Your task to perform on an android device: Clear the shopping cart on target.com. Add razer kraken to the cart on target.com, then select checkout. Image 0: 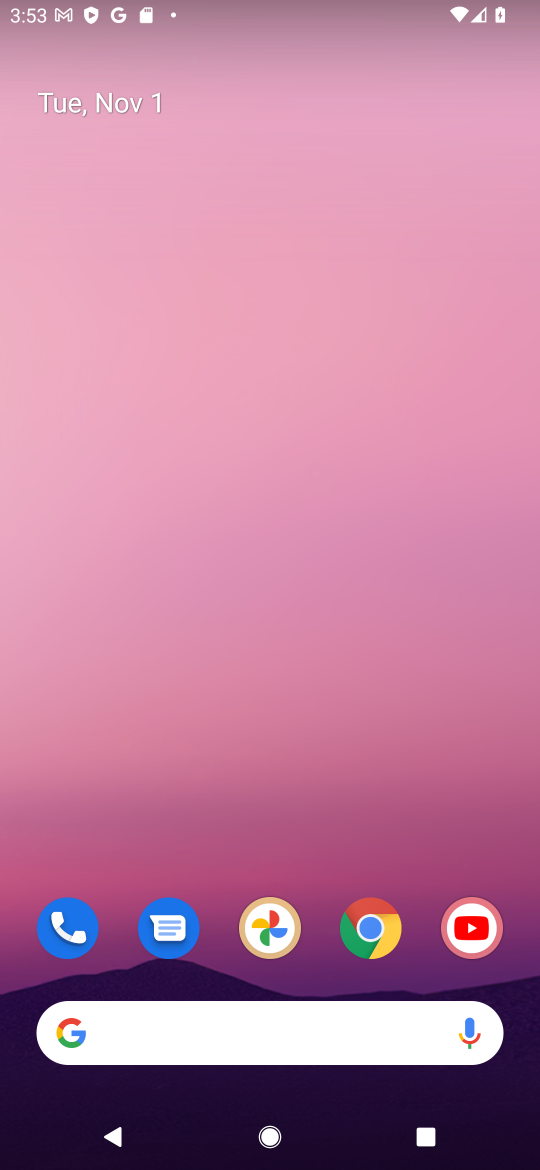
Step 0: click (388, 934)
Your task to perform on an android device: Clear the shopping cart on target.com. Add razer kraken to the cart on target.com, then select checkout. Image 1: 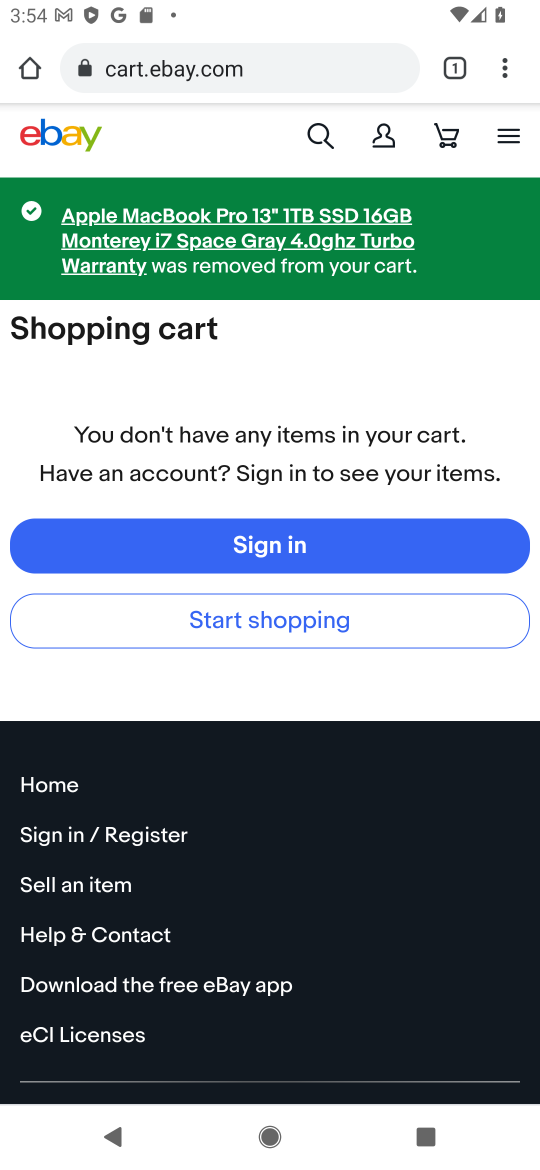
Step 1: click (257, 61)
Your task to perform on an android device: Clear the shopping cart on target.com. Add razer kraken to the cart on target.com, then select checkout. Image 2: 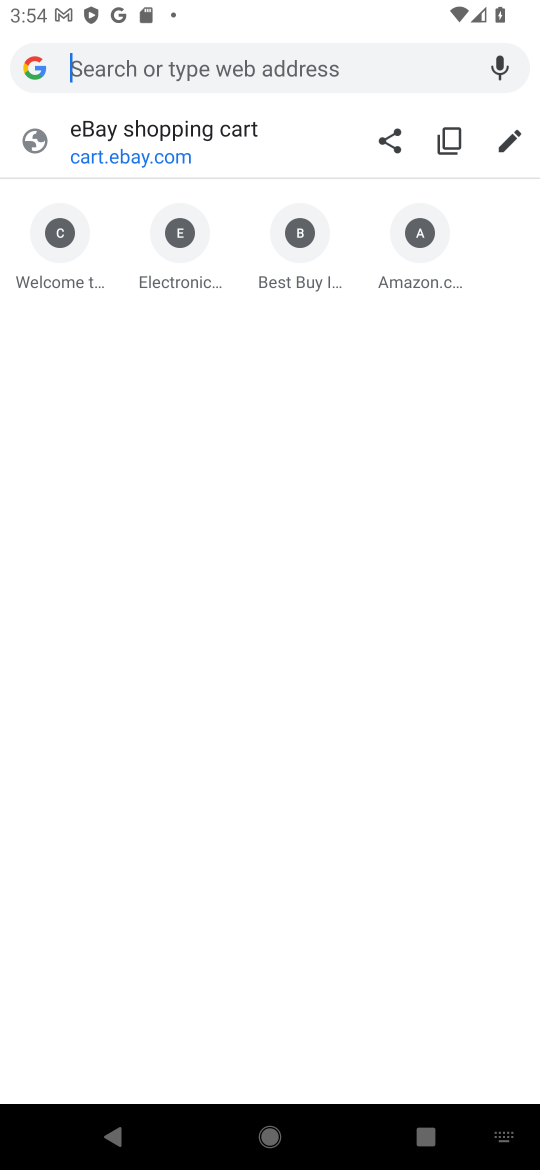
Step 2: type "target.com"
Your task to perform on an android device: Clear the shopping cart on target.com. Add razer kraken to the cart on target.com, then select checkout. Image 3: 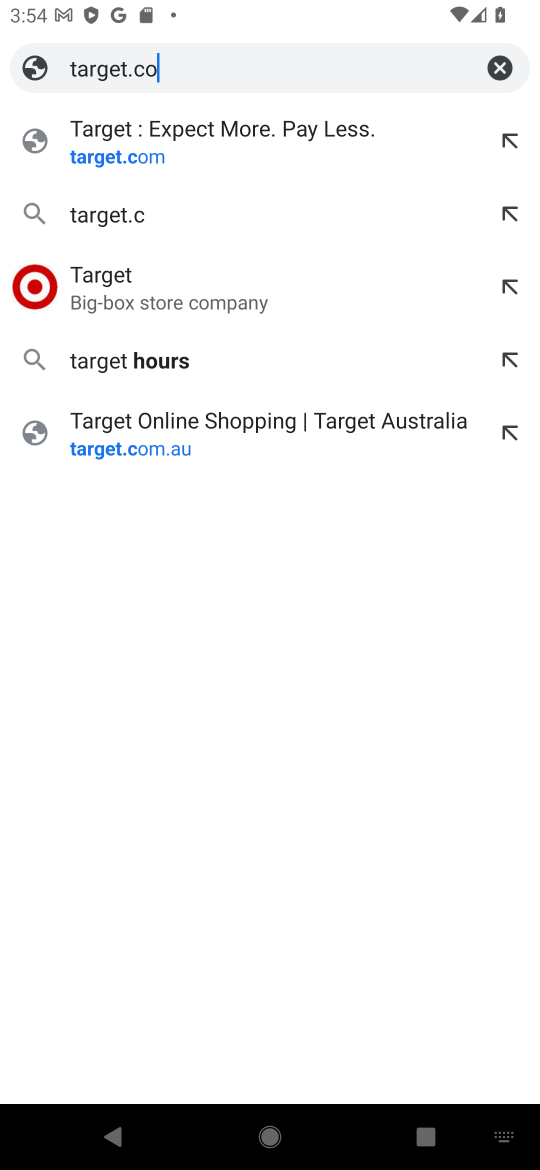
Step 3: type ""
Your task to perform on an android device: Clear the shopping cart on target.com. Add razer kraken to the cart on target.com, then select checkout. Image 4: 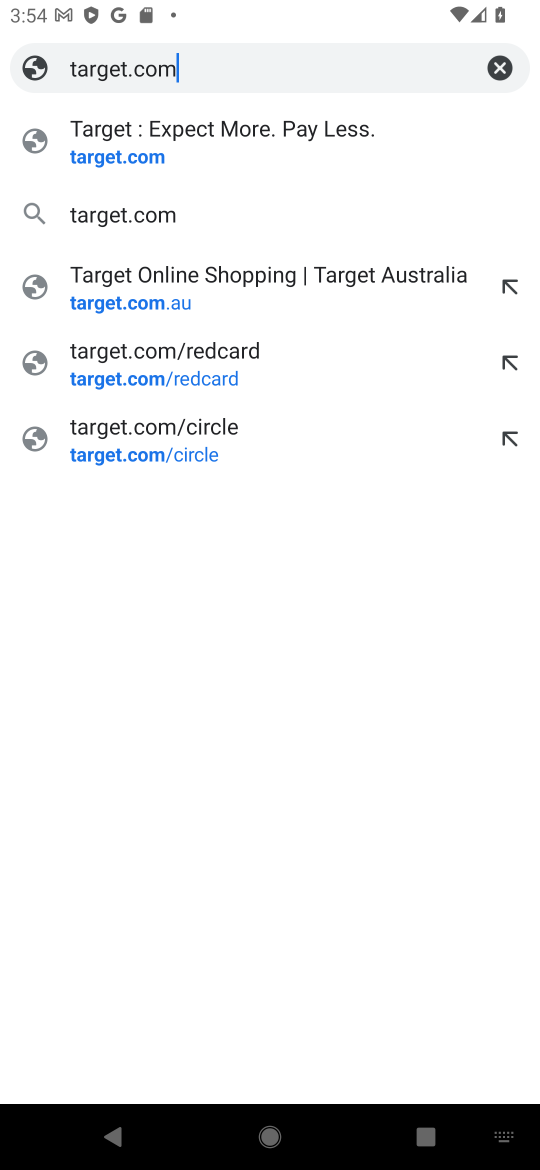
Step 4: press enter
Your task to perform on an android device: Clear the shopping cart on target.com. Add razer kraken to the cart on target.com, then select checkout. Image 5: 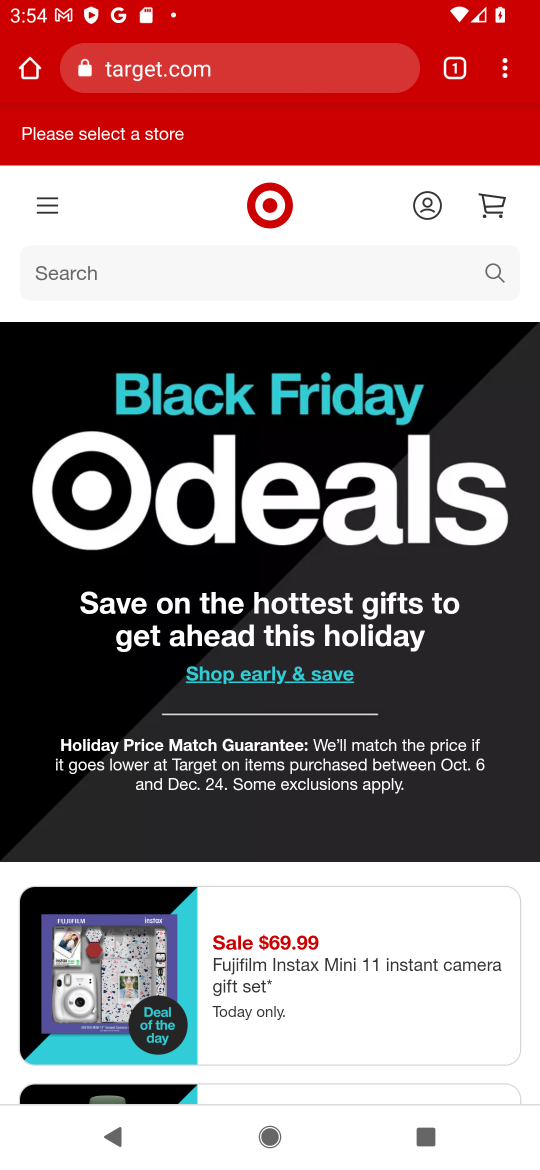
Step 5: click (479, 196)
Your task to perform on an android device: Clear the shopping cart on target.com. Add razer kraken to the cart on target.com, then select checkout. Image 6: 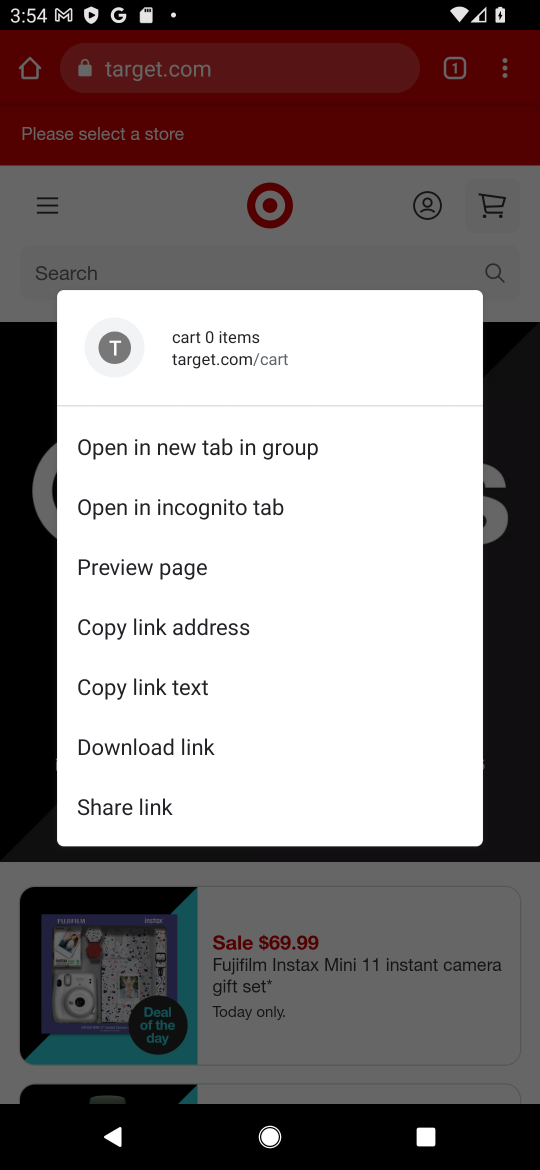
Step 6: click (426, 1007)
Your task to perform on an android device: Clear the shopping cart on target.com. Add razer kraken to the cart on target.com, then select checkout. Image 7: 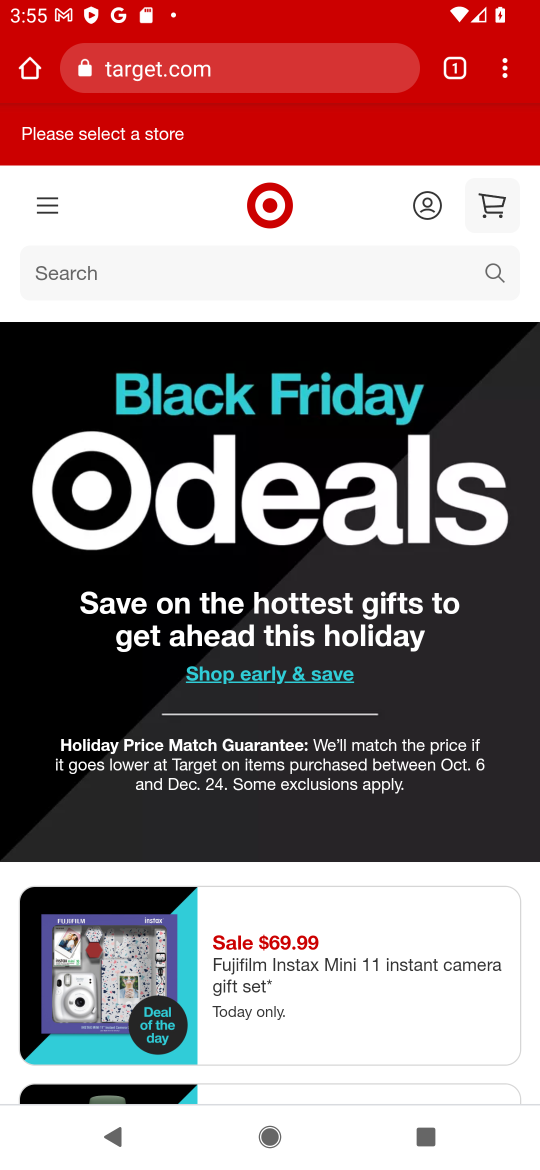
Step 7: click (483, 200)
Your task to perform on an android device: Clear the shopping cart on target.com. Add razer kraken to the cart on target.com, then select checkout. Image 8: 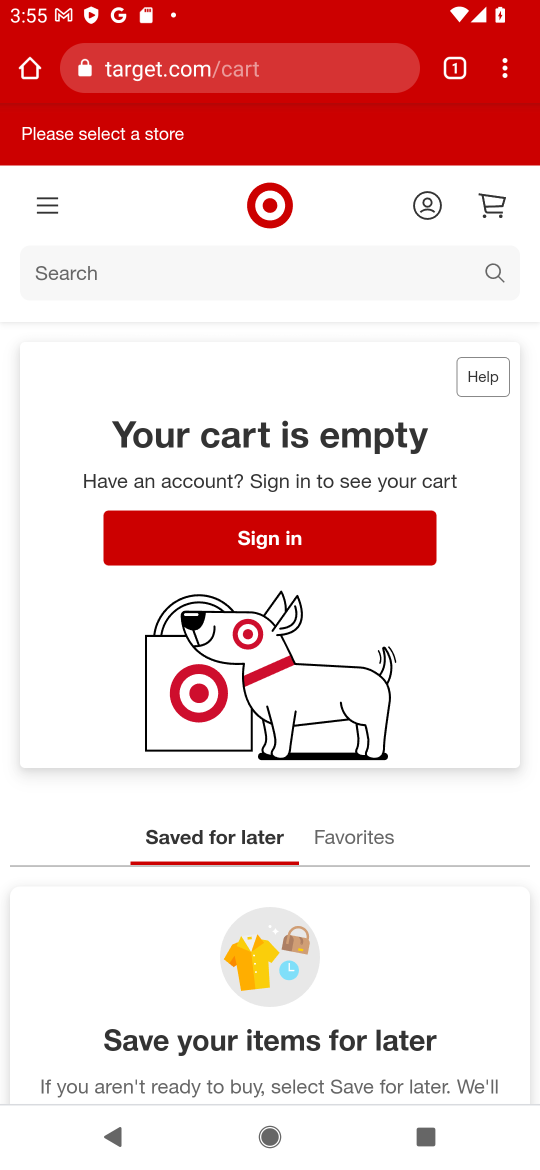
Step 8: click (158, 264)
Your task to perform on an android device: Clear the shopping cart on target.com. Add razer kraken to the cart on target.com, then select checkout. Image 9: 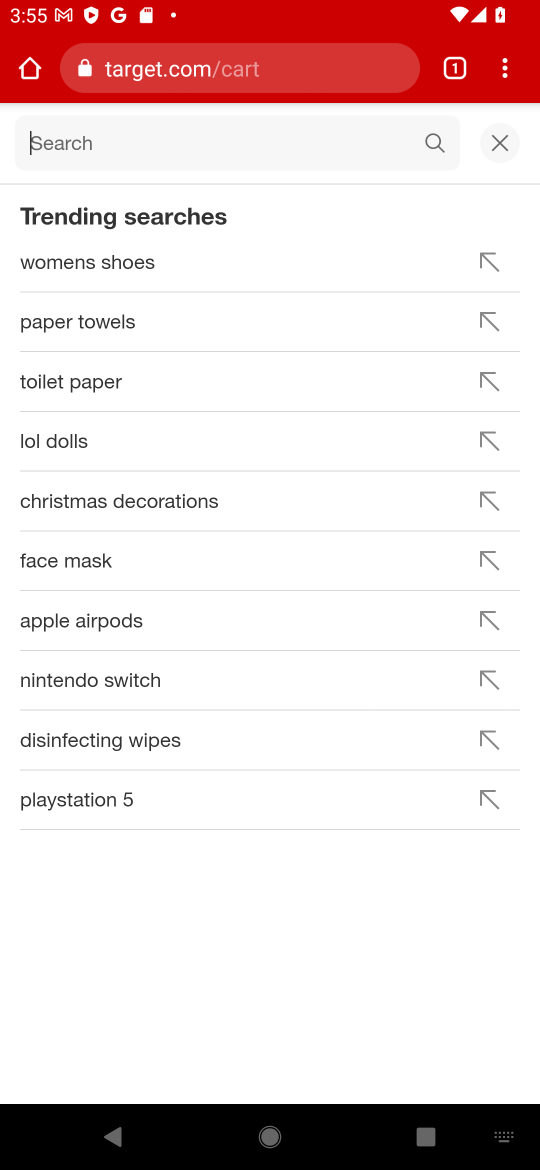
Step 9: type "razer kraken"
Your task to perform on an android device: Clear the shopping cart on target.com. Add razer kraken to the cart on target.com, then select checkout. Image 10: 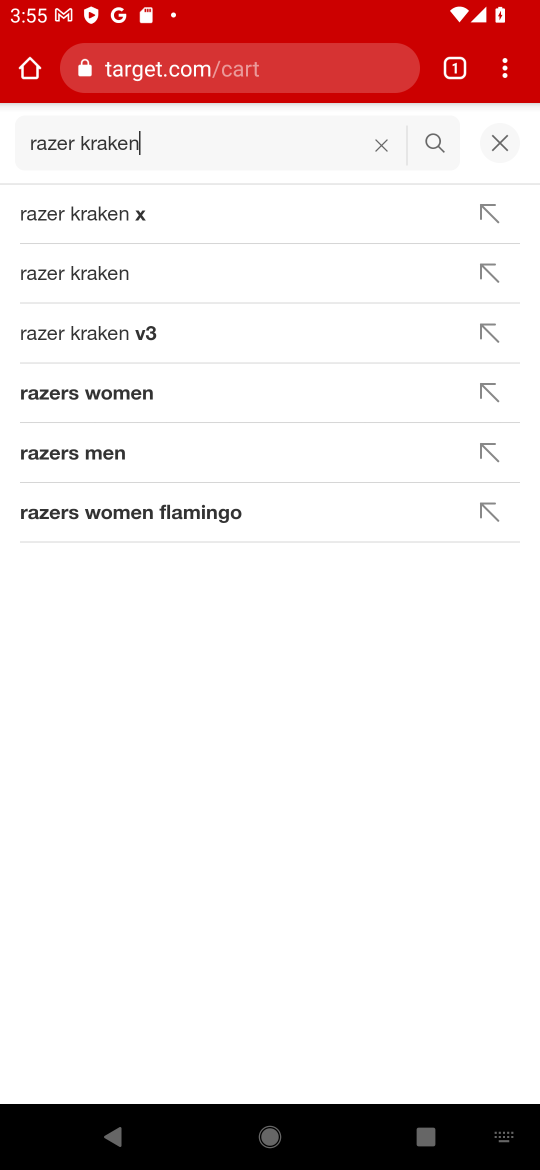
Step 10: press enter
Your task to perform on an android device: Clear the shopping cart on target.com. Add razer kraken to the cart on target.com, then select checkout. Image 11: 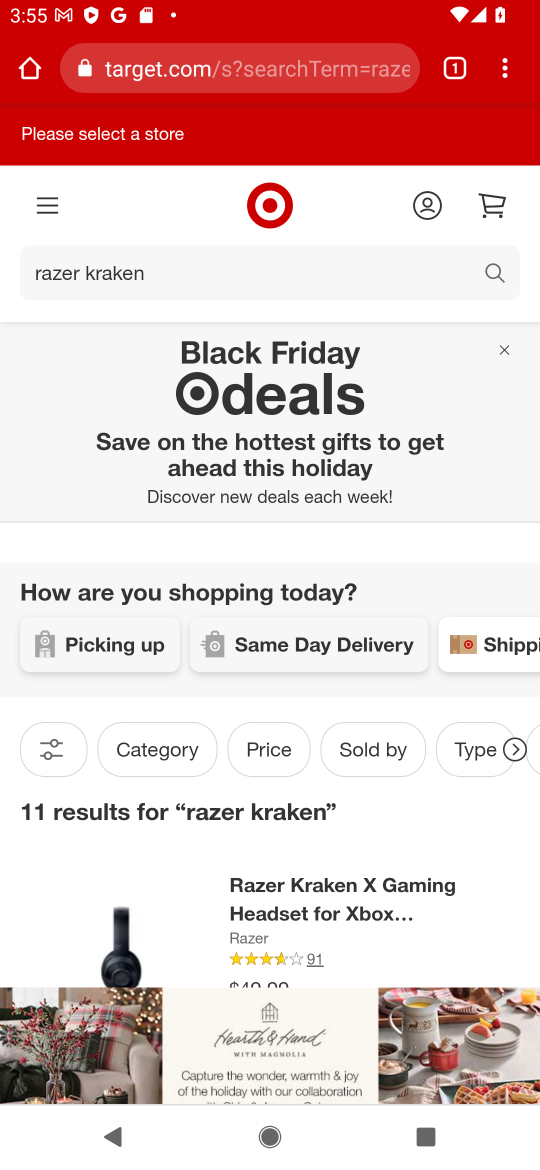
Step 11: drag from (407, 910) to (380, 375)
Your task to perform on an android device: Clear the shopping cart on target.com. Add razer kraken to the cart on target.com, then select checkout. Image 12: 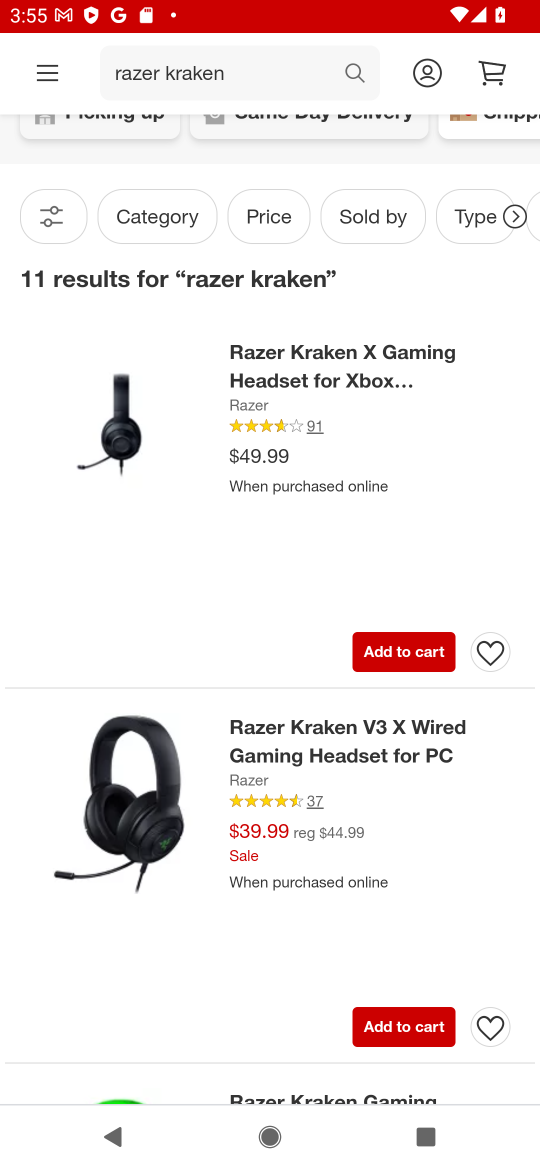
Step 12: click (328, 375)
Your task to perform on an android device: Clear the shopping cart on target.com. Add razer kraken to the cart on target.com, then select checkout. Image 13: 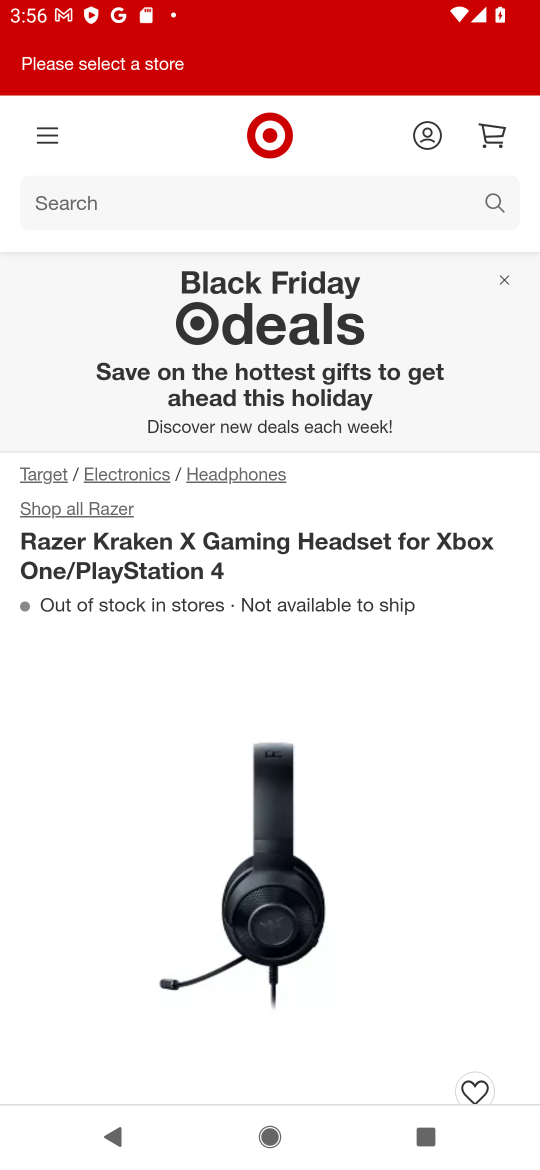
Step 13: drag from (340, 786) to (309, 242)
Your task to perform on an android device: Clear the shopping cart on target.com. Add razer kraken to the cart on target.com, then select checkout. Image 14: 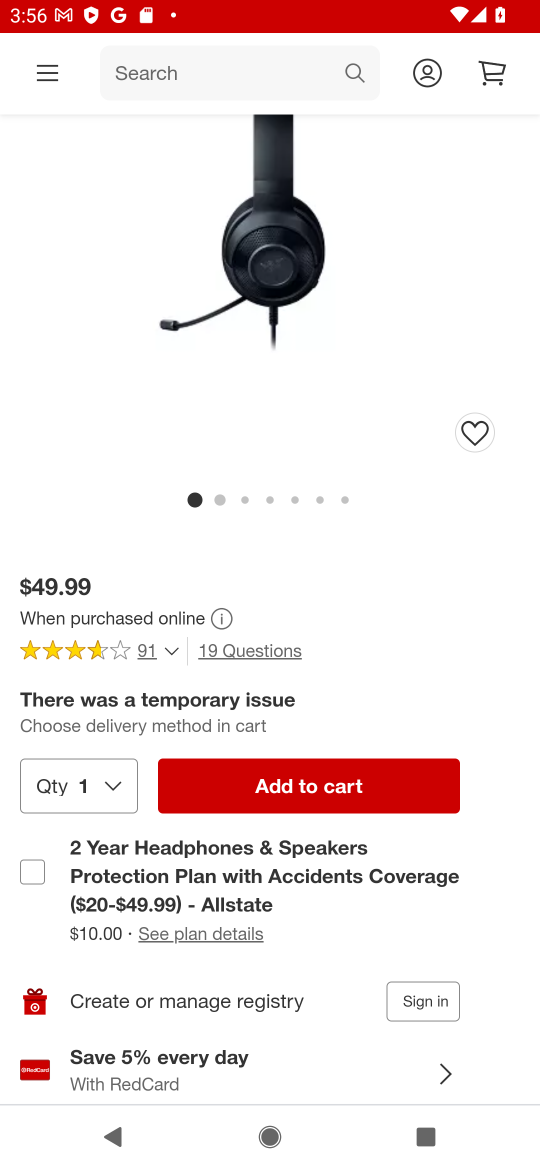
Step 14: drag from (303, 953) to (393, 504)
Your task to perform on an android device: Clear the shopping cart on target.com. Add razer kraken to the cart on target.com, then select checkout. Image 15: 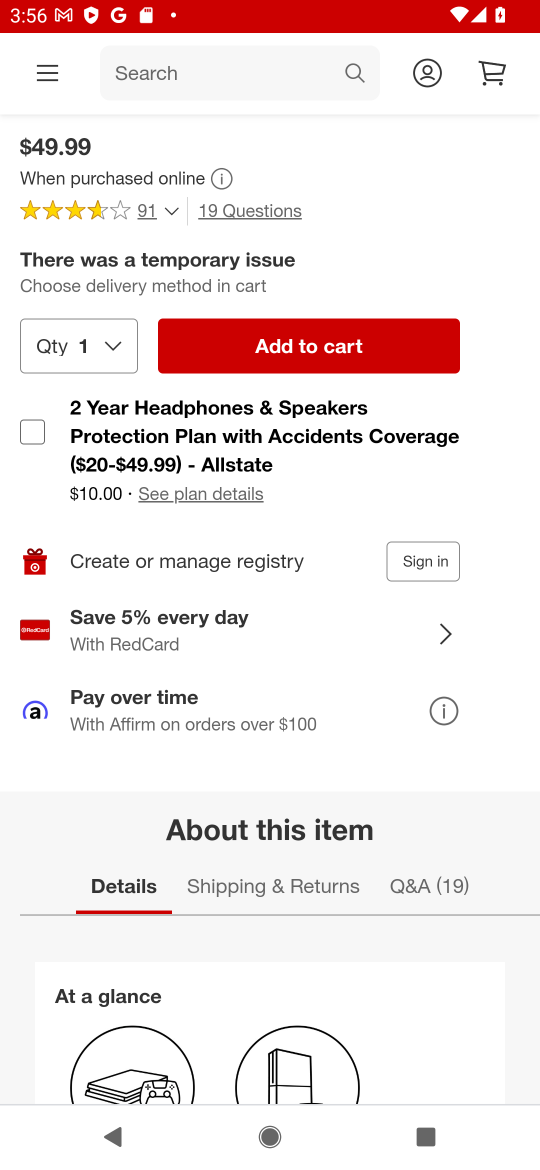
Step 15: click (404, 362)
Your task to perform on an android device: Clear the shopping cart on target.com. Add razer kraken to the cart on target.com, then select checkout. Image 16: 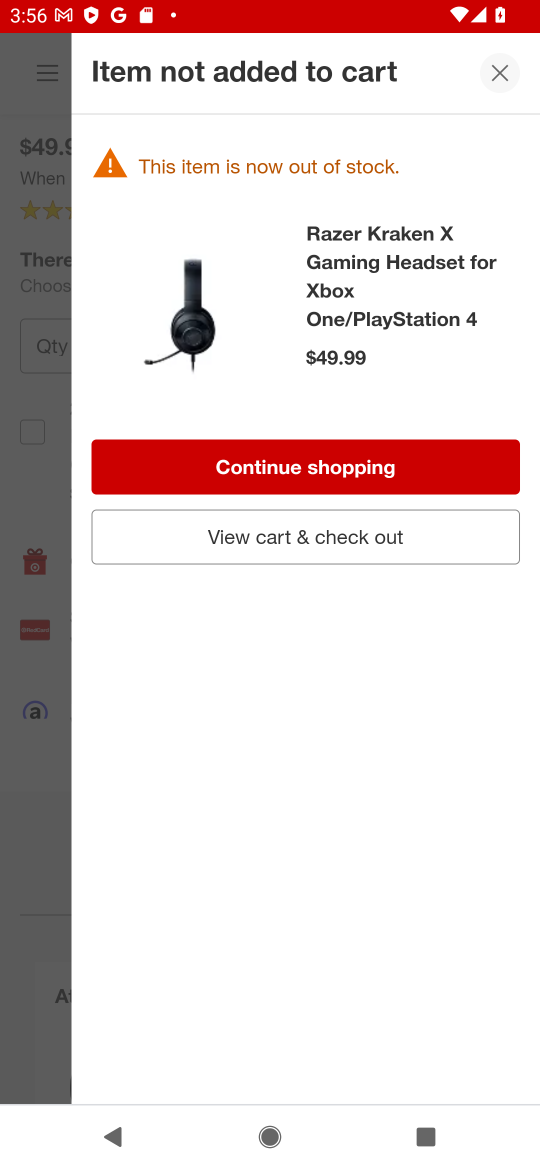
Step 16: click (354, 540)
Your task to perform on an android device: Clear the shopping cart on target.com. Add razer kraken to the cart on target.com, then select checkout. Image 17: 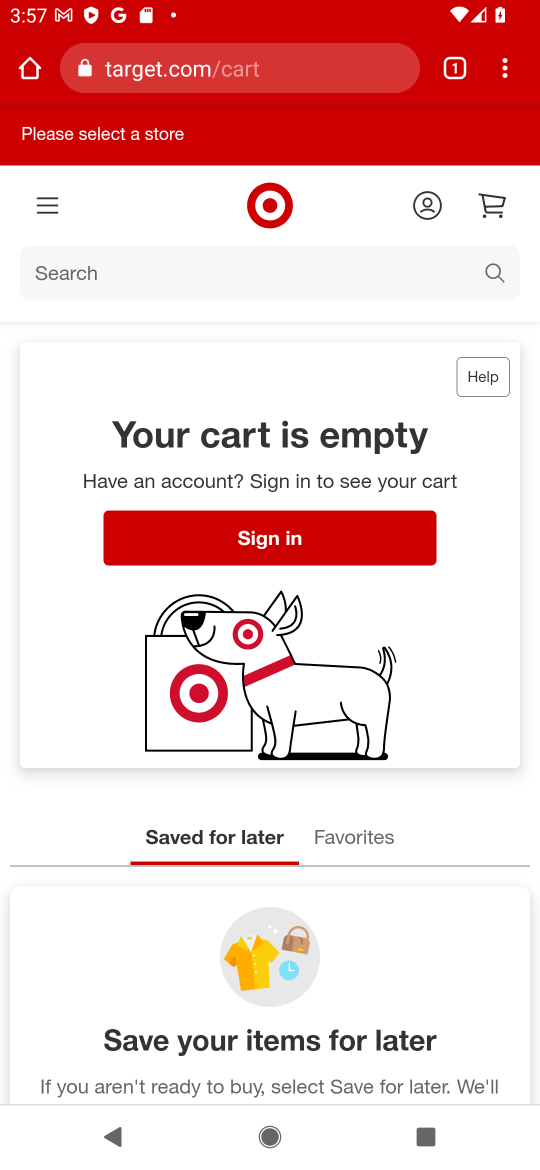
Step 17: click (170, 289)
Your task to perform on an android device: Clear the shopping cart on target.com. Add razer kraken to the cart on target.com, then select checkout. Image 18: 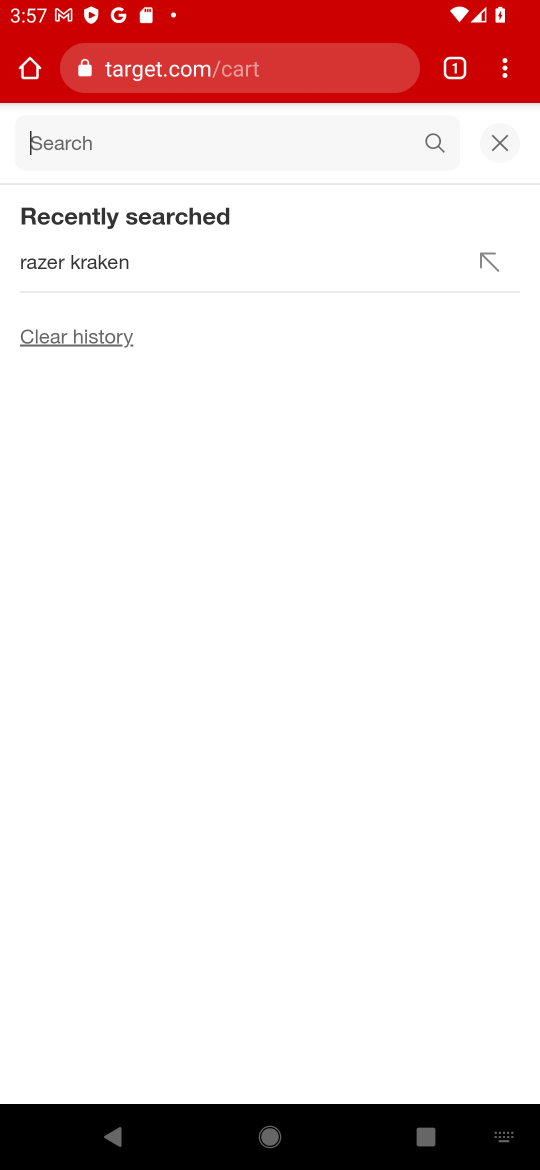
Step 18: type "razer kraken"
Your task to perform on an android device: Clear the shopping cart on target.com. Add razer kraken to the cart on target.com, then select checkout. Image 19: 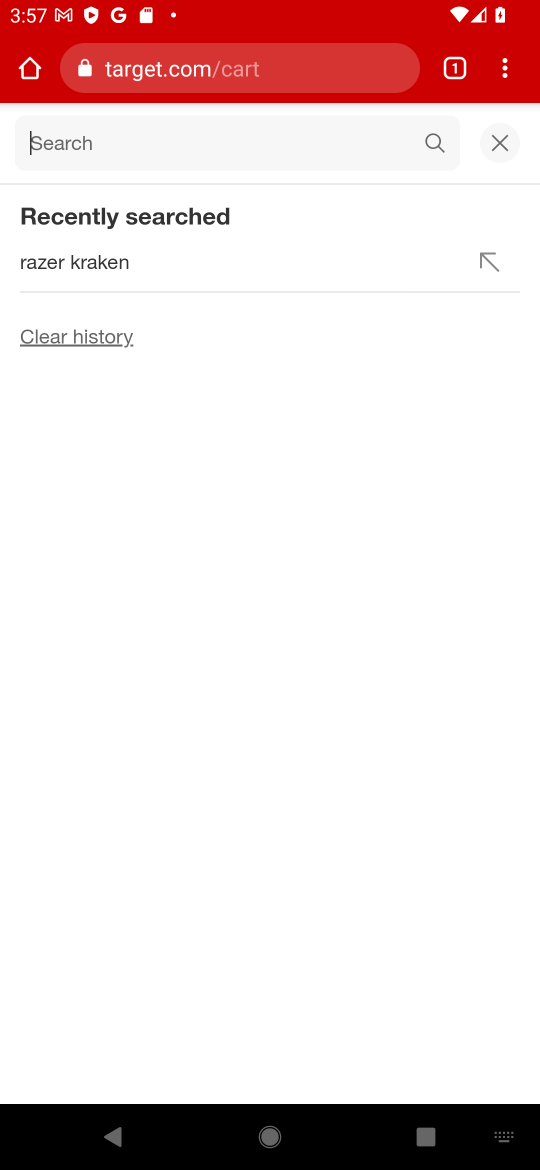
Step 19: type ""
Your task to perform on an android device: Clear the shopping cart on target.com. Add razer kraken to the cart on target.com, then select checkout. Image 20: 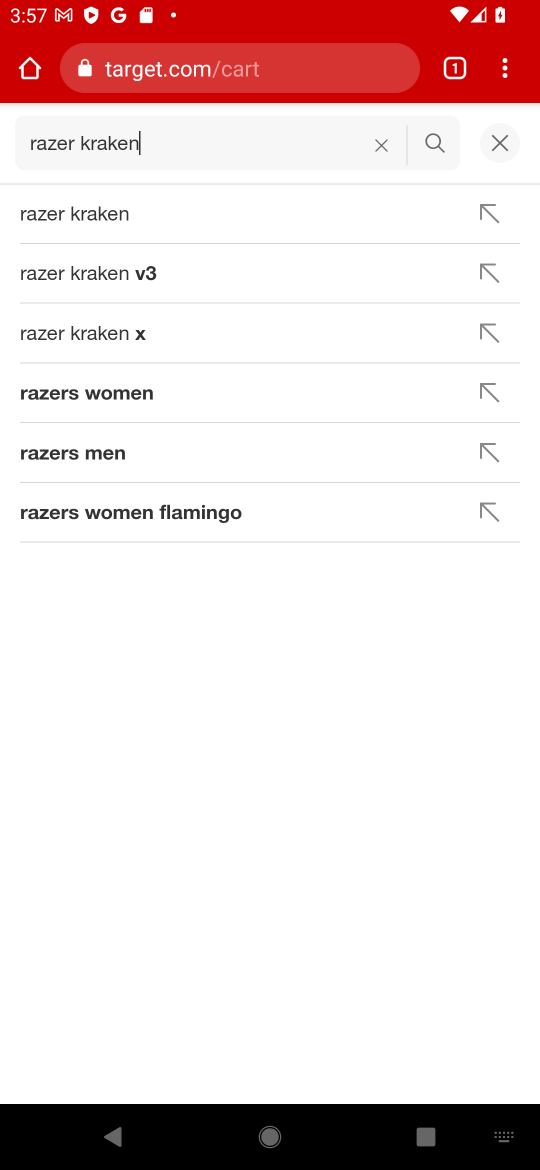
Step 20: press enter
Your task to perform on an android device: Clear the shopping cart on target.com. Add razer kraken to the cart on target.com, then select checkout. Image 21: 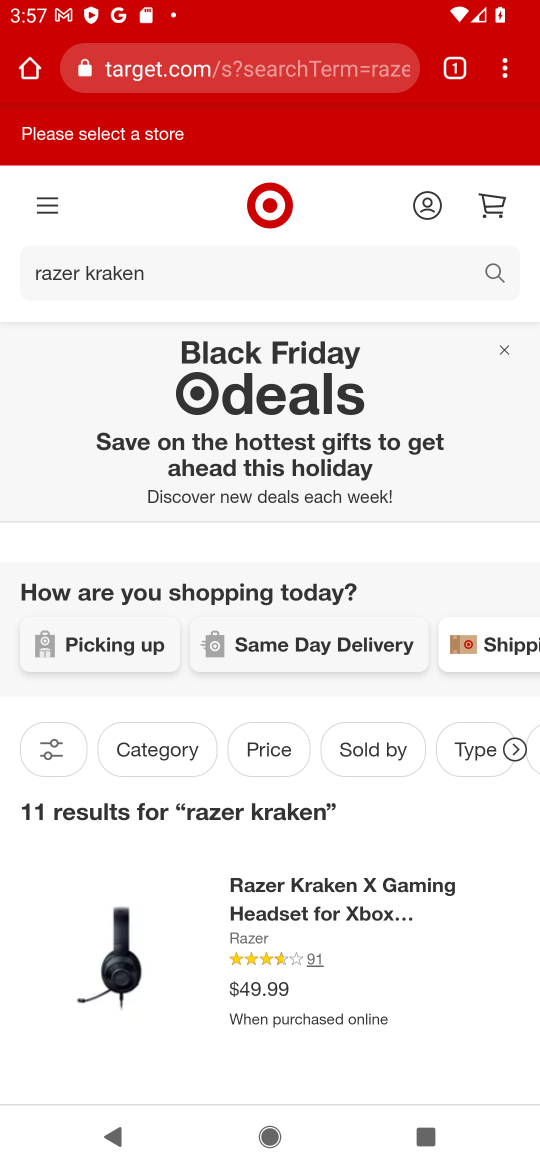
Step 21: click (385, 894)
Your task to perform on an android device: Clear the shopping cart on target.com. Add razer kraken to the cart on target.com, then select checkout. Image 22: 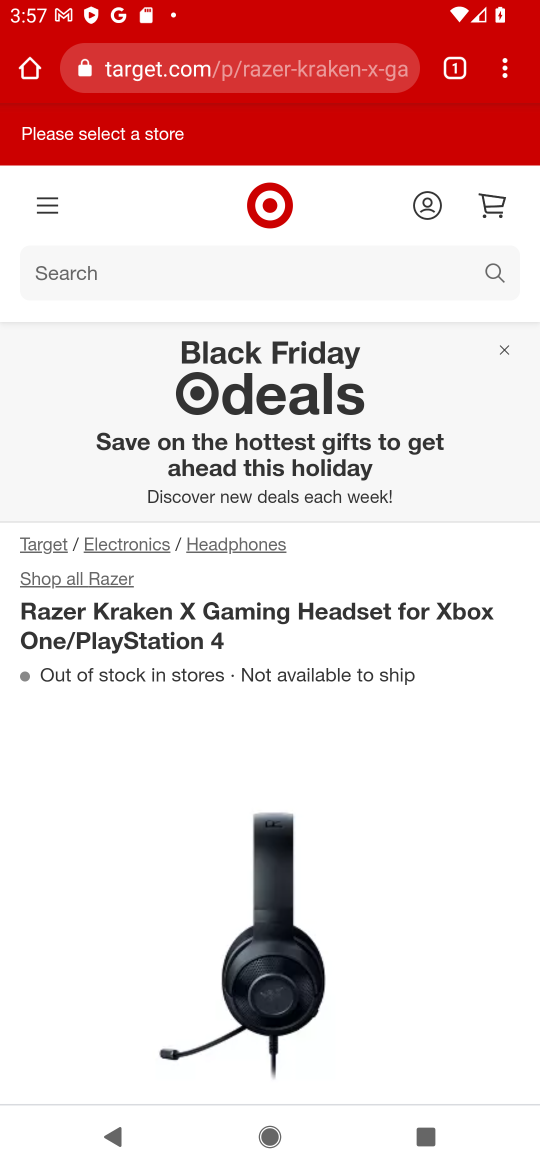
Step 22: drag from (387, 979) to (415, 328)
Your task to perform on an android device: Clear the shopping cart on target.com. Add razer kraken to the cart on target.com, then select checkout. Image 23: 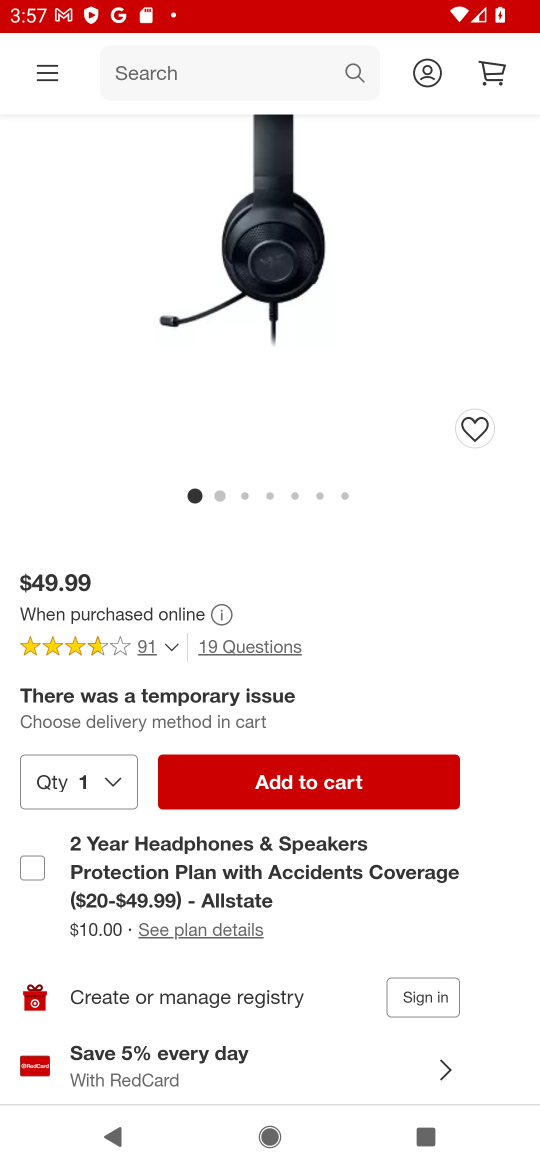
Step 23: click (325, 761)
Your task to perform on an android device: Clear the shopping cart on target.com. Add razer kraken to the cart on target.com, then select checkout. Image 24: 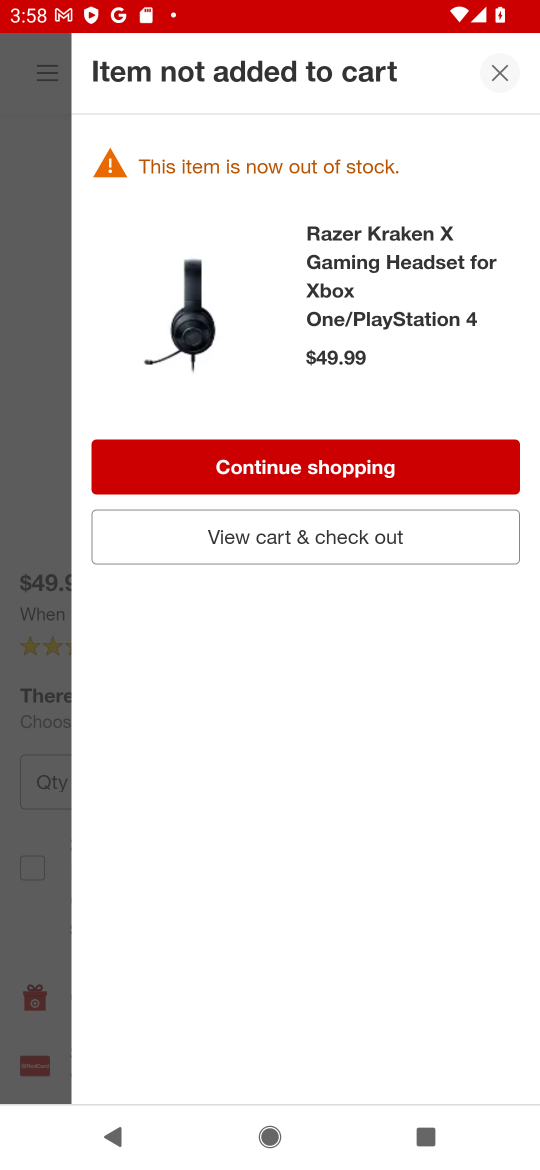
Step 24: click (336, 537)
Your task to perform on an android device: Clear the shopping cart on target.com. Add razer kraken to the cart on target.com, then select checkout. Image 25: 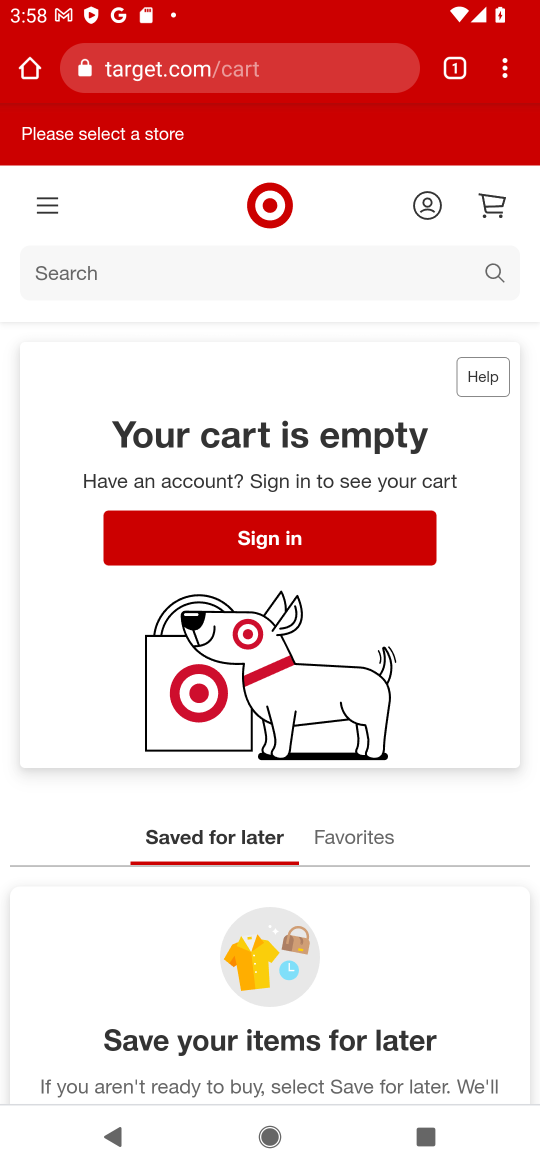
Step 25: task complete